Your task to perform on an android device: turn on wifi Image 0: 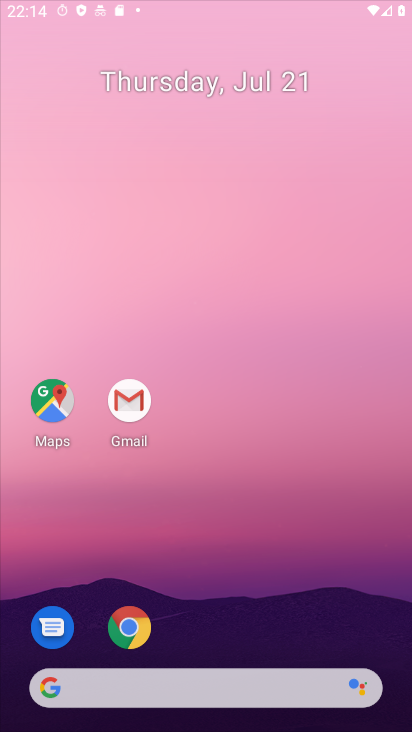
Step 0: click (172, 253)
Your task to perform on an android device: turn on wifi Image 1: 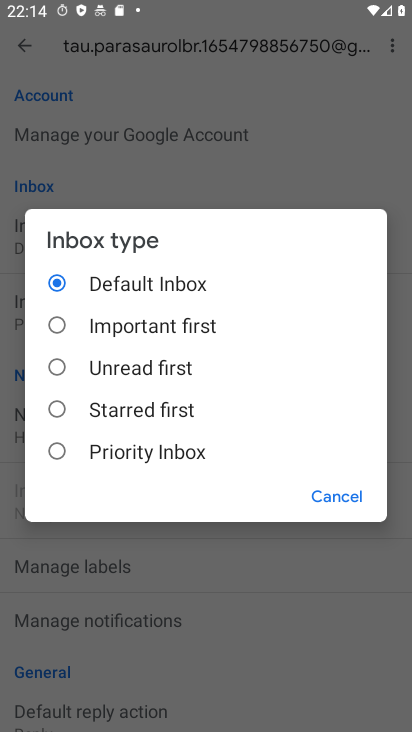
Step 1: click (337, 496)
Your task to perform on an android device: turn on wifi Image 2: 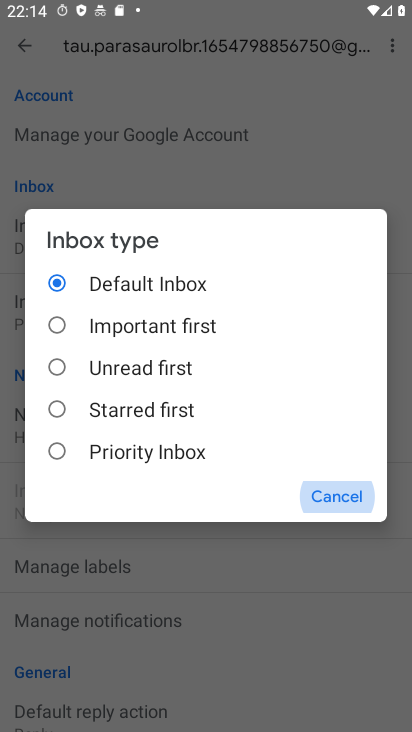
Step 2: click (337, 495)
Your task to perform on an android device: turn on wifi Image 3: 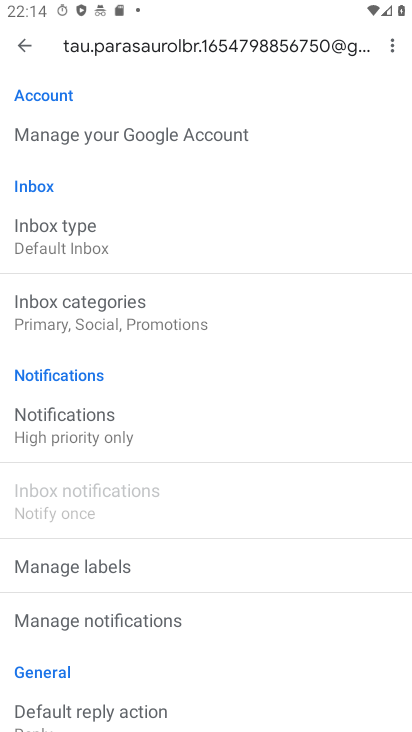
Step 3: click (28, 48)
Your task to perform on an android device: turn on wifi Image 4: 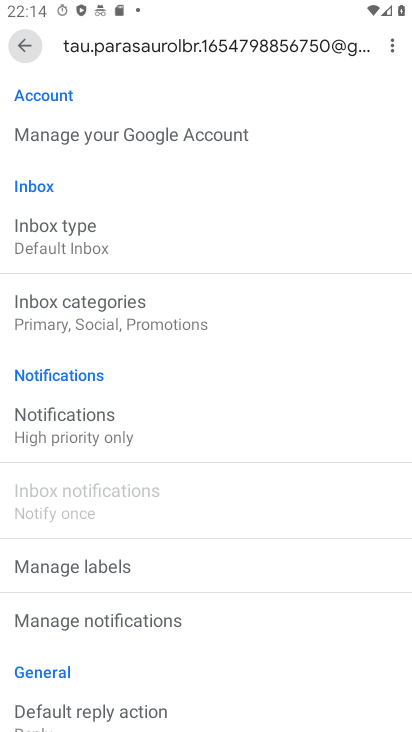
Step 4: click (27, 47)
Your task to perform on an android device: turn on wifi Image 5: 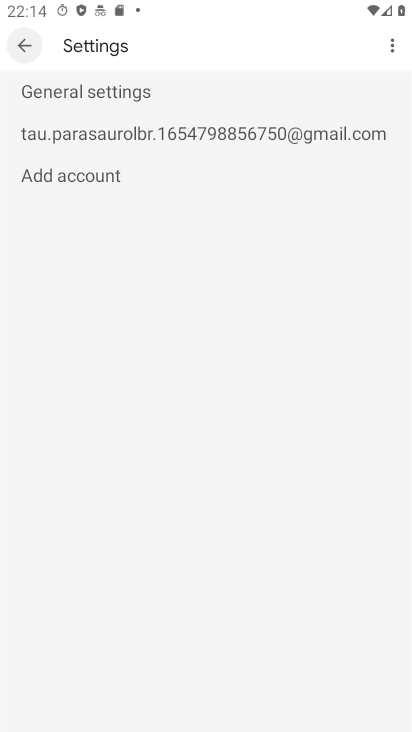
Step 5: click (27, 47)
Your task to perform on an android device: turn on wifi Image 6: 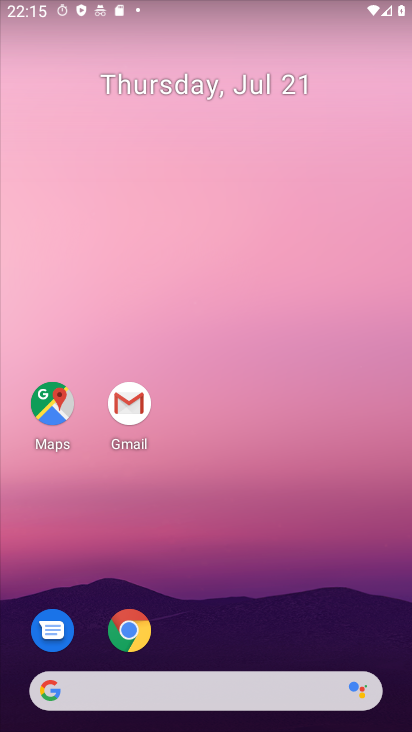
Step 6: drag from (199, 493) to (143, 153)
Your task to perform on an android device: turn on wifi Image 7: 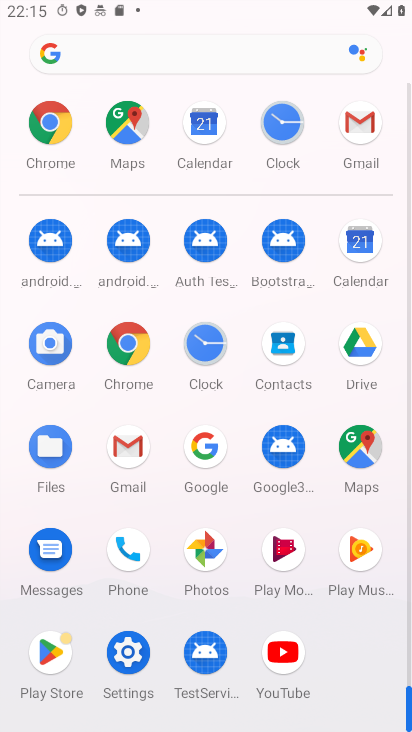
Step 7: click (121, 653)
Your task to perform on an android device: turn on wifi Image 8: 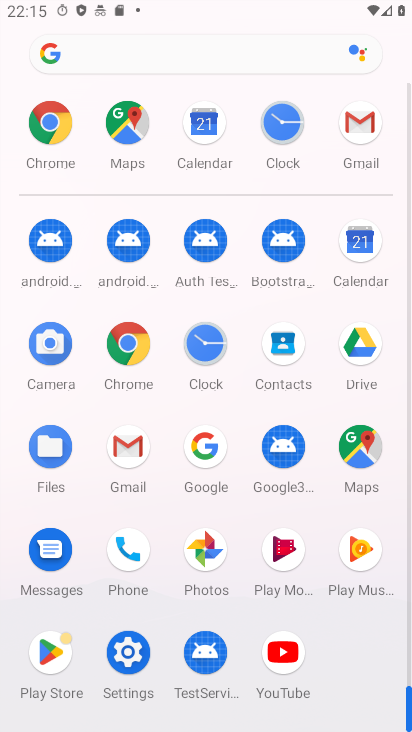
Step 8: click (121, 650)
Your task to perform on an android device: turn on wifi Image 9: 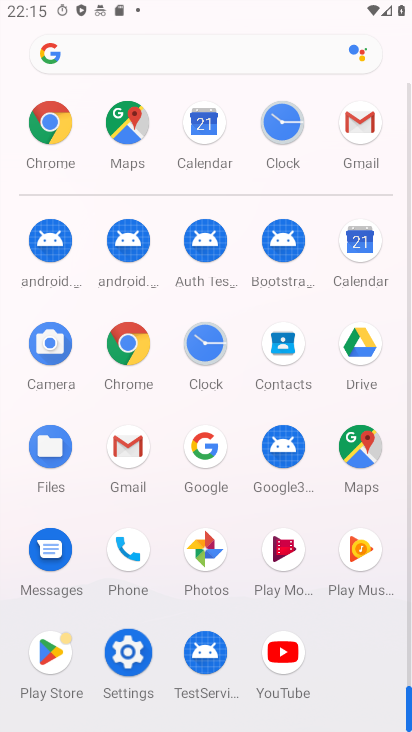
Step 9: click (121, 650)
Your task to perform on an android device: turn on wifi Image 10: 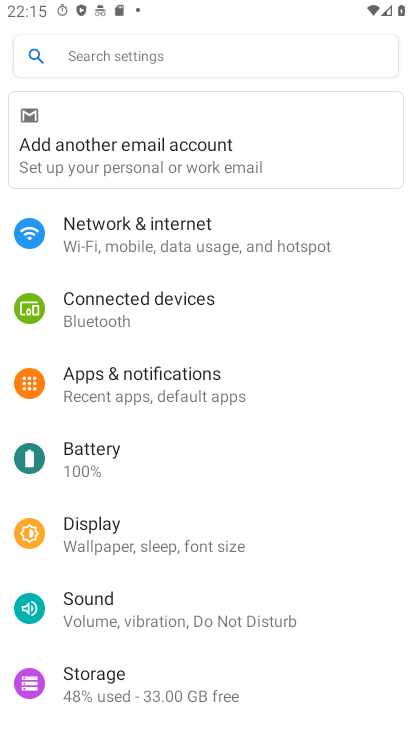
Step 10: click (122, 642)
Your task to perform on an android device: turn on wifi Image 11: 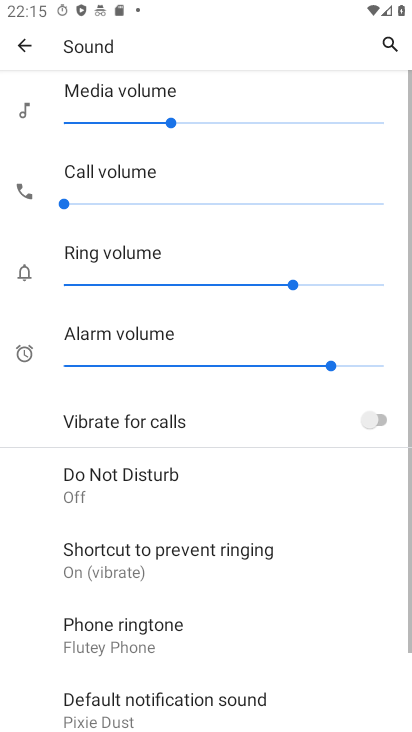
Step 11: click (148, 225)
Your task to perform on an android device: turn on wifi Image 12: 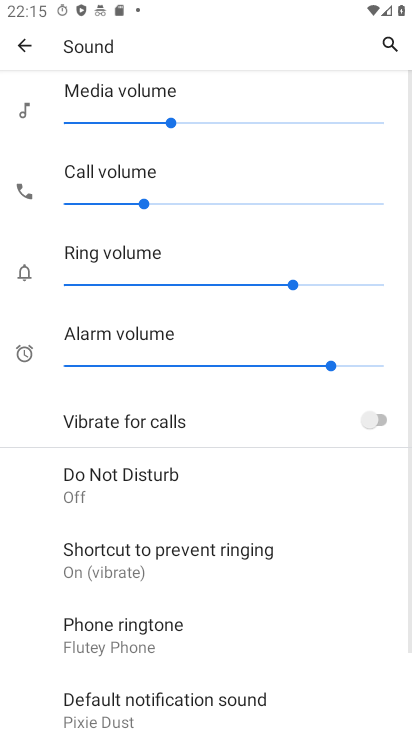
Step 12: click (16, 41)
Your task to perform on an android device: turn on wifi Image 13: 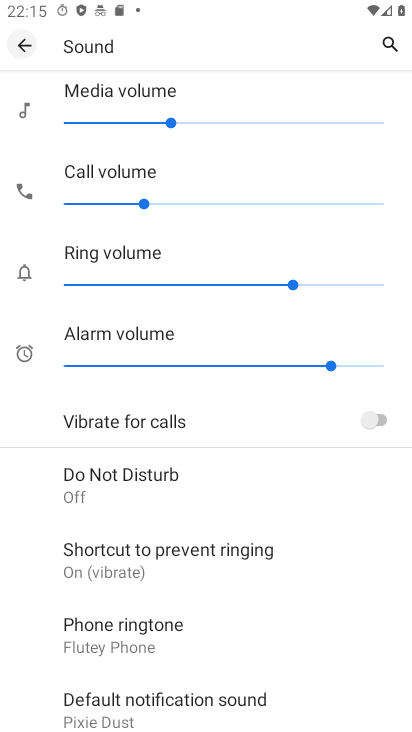
Step 13: click (16, 41)
Your task to perform on an android device: turn on wifi Image 14: 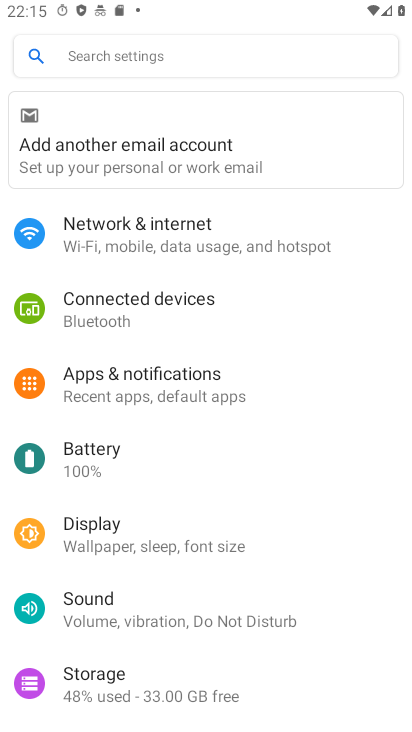
Step 14: click (134, 234)
Your task to perform on an android device: turn on wifi Image 15: 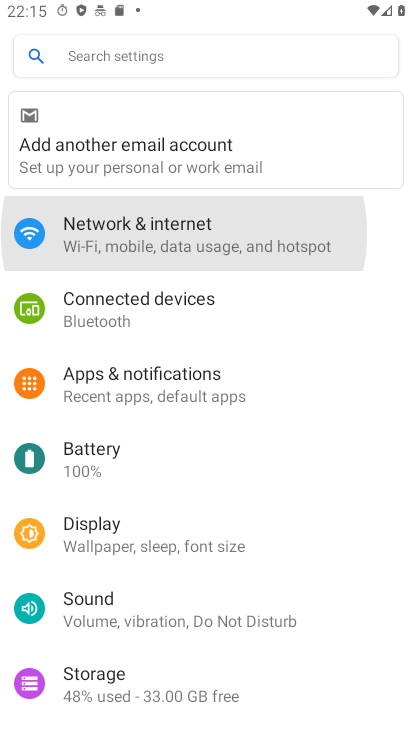
Step 15: click (146, 228)
Your task to perform on an android device: turn on wifi Image 16: 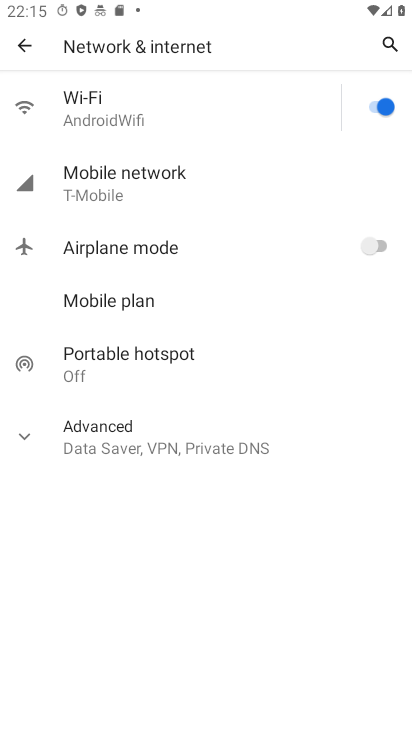
Step 16: task complete